Your task to perform on an android device: visit the assistant section in the google photos Image 0: 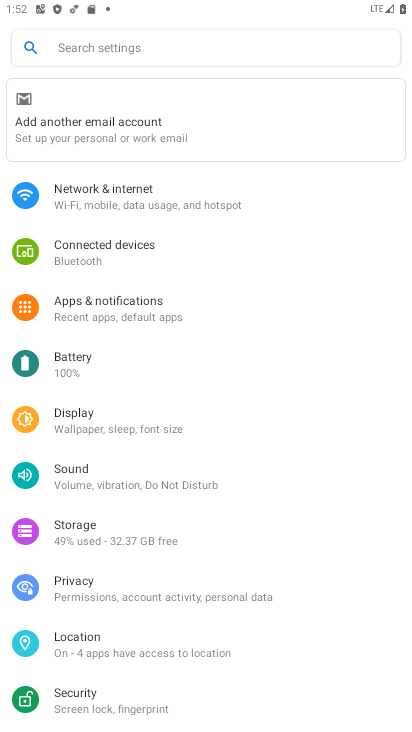
Step 0: press home button
Your task to perform on an android device: visit the assistant section in the google photos Image 1: 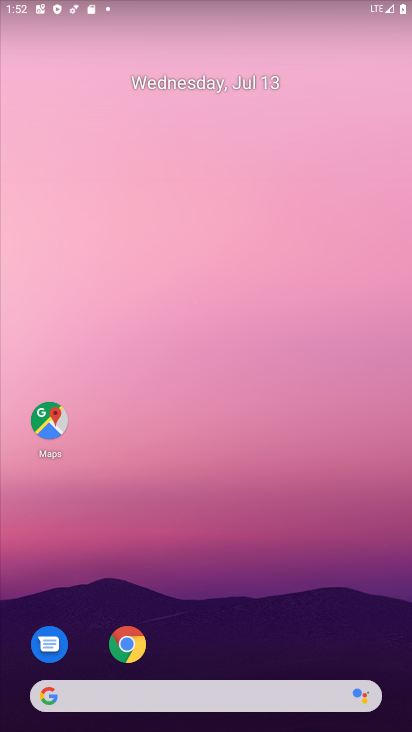
Step 1: drag from (268, 610) to (244, 156)
Your task to perform on an android device: visit the assistant section in the google photos Image 2: 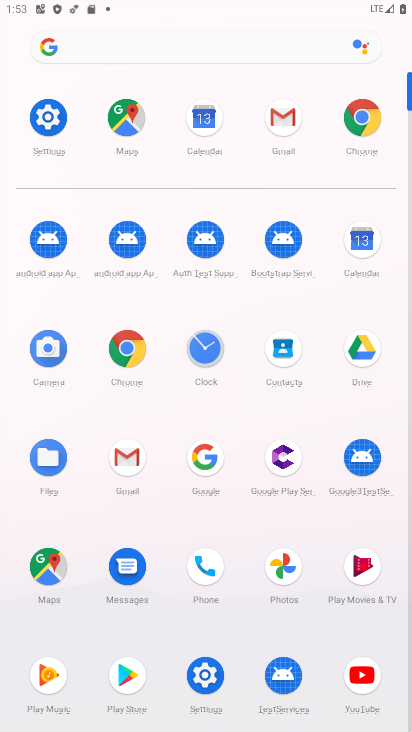
Step 2: click (286, 560)
Your task to perform on an android device: visit the assistant section in the google photos Image 3: 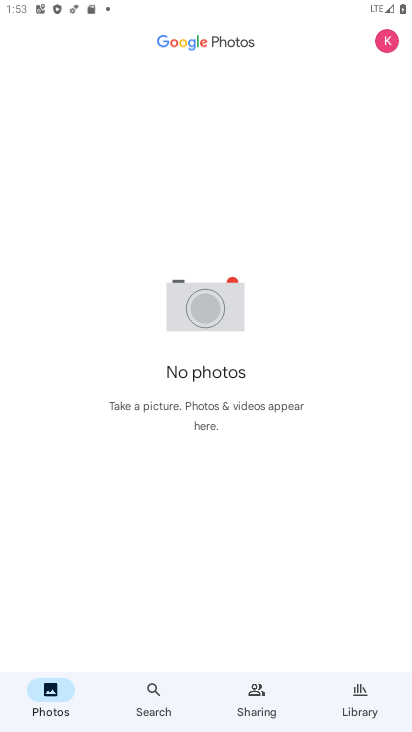
Step 3: click (359, 705)
Your task to perform on an android device: visit the assistant section in the google photos Image 4: 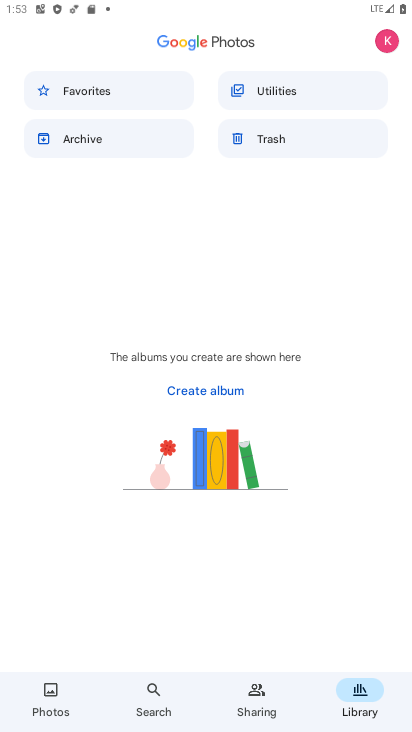
Step 4: click (386, 34)
Your task to perform on an android device: visit the assistant section in the google photos Image 5: 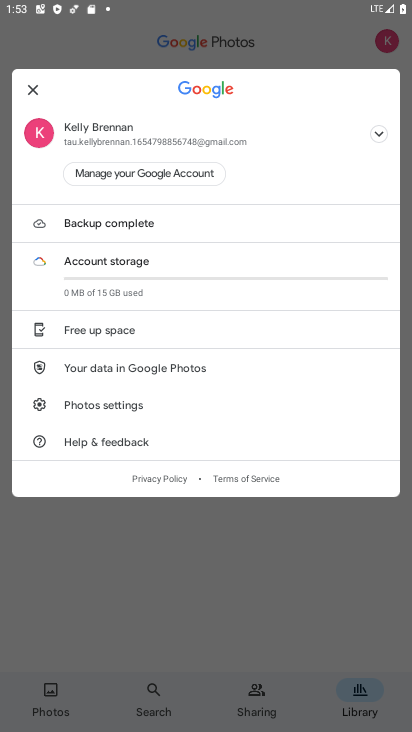
Step 5: click (239, 577)
Your task to perform on an android device: visit the assistant section in the google photos Image 6: 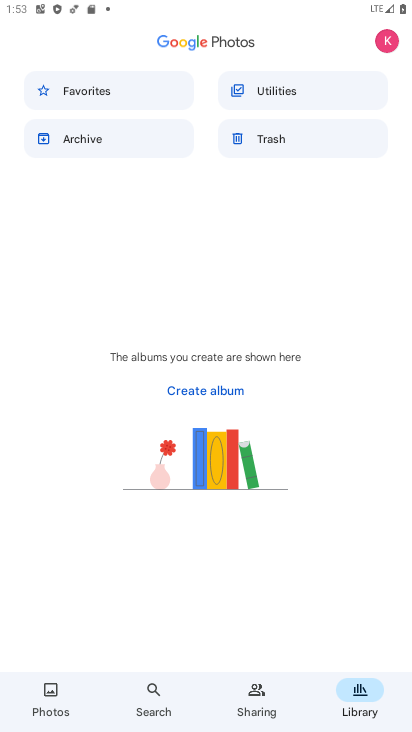
Step 6: task complete